Your task to perform on an android device: turn notification dots on Image 0: 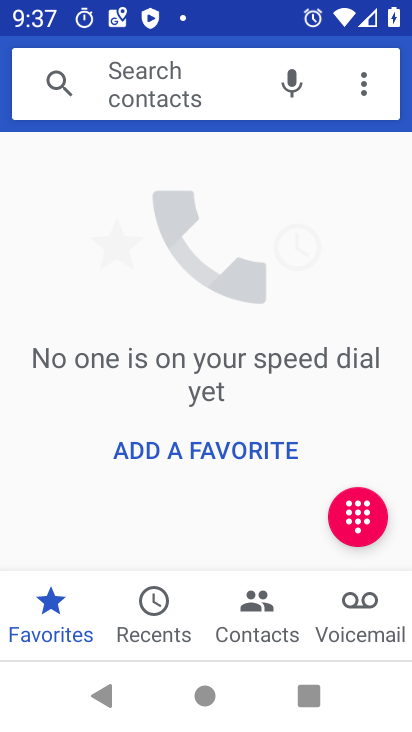
Step 0: press home button
Your task to perform on an android device: turn notification dots on Image 1: 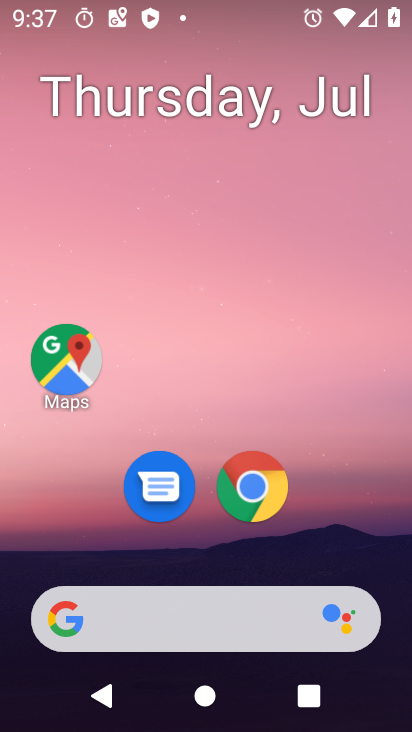
Step 1: drag from (131, 487) to (135, 103)
Your task to perform on an android device: turn notification dots on Image 2: 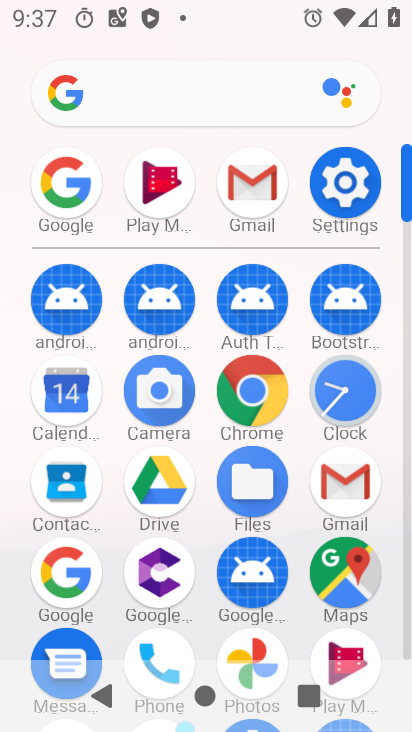
Step 2: click (343, 208)
Your task to perform on an android device: turn notification dots on Image 3: 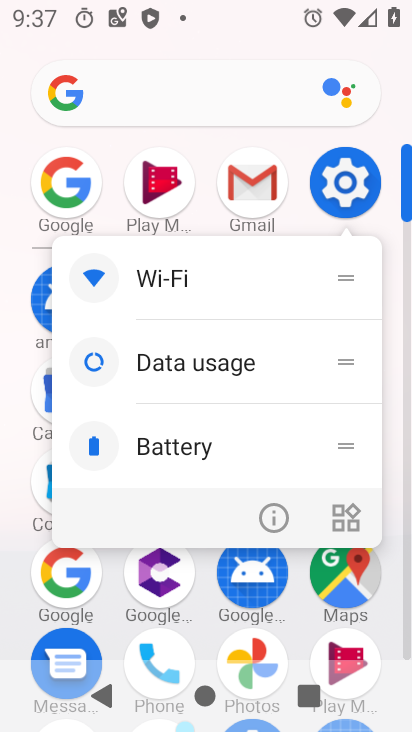
Step 3: click (346, 208)
Your task to perform on an android device: turn notification dots on Image 4: 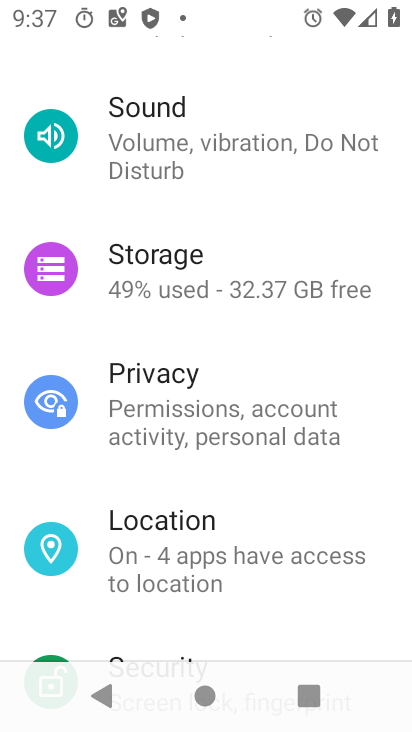
Step 4: drag from (242, 334) to (253, 645)
Your task to perform on an android device: turn notification dots on Image 5: 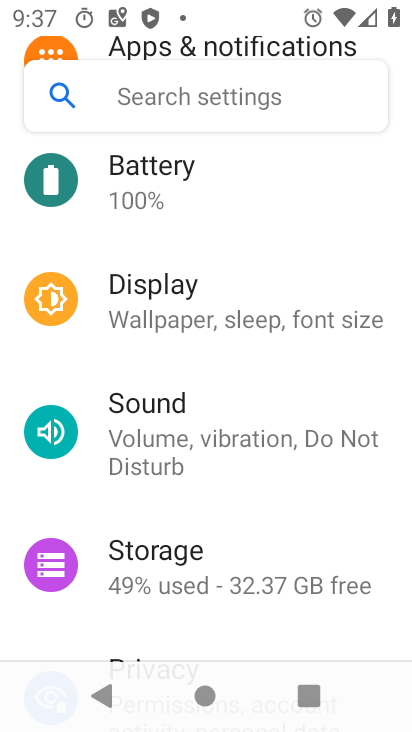
Step 5: drag from (198, 334) to (196, 595)
Your task to perform on an android device: turn notification dots on Image 6: 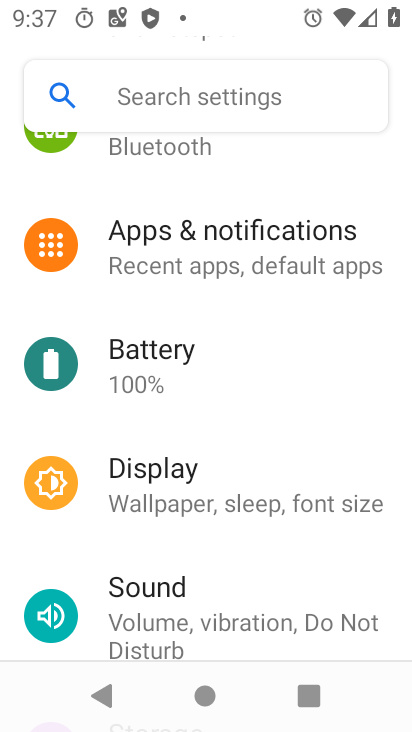
Step 6: click (172, 268)
Your task to perform on an android device: turn notification dots on Image 7: 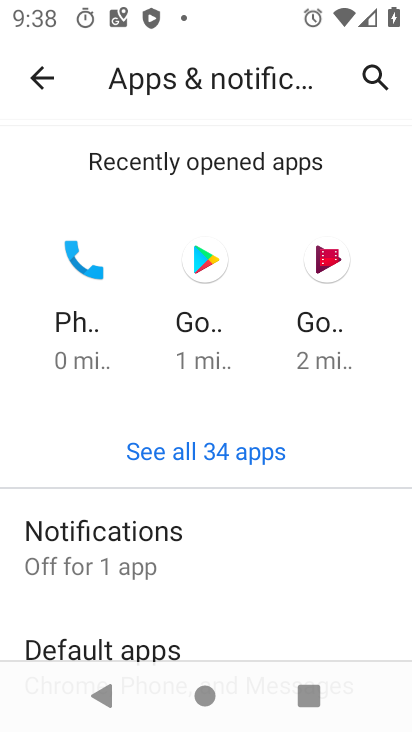
Step 7: click (113, 531)
Your task to perform on an android device: turn notification dots on Image 8: 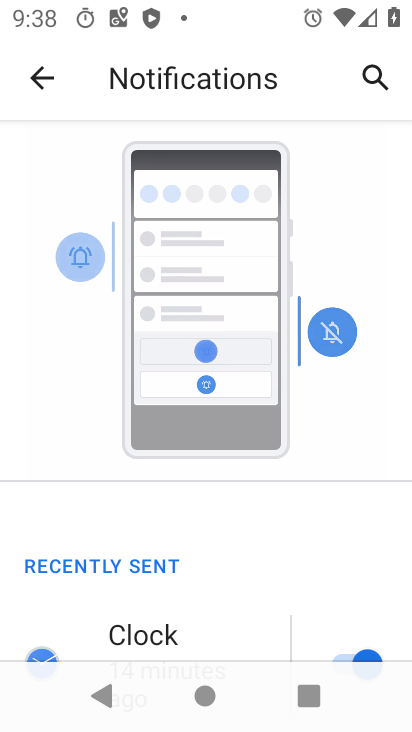
Step 8: drag from (113, 612) to (114, 251)
Your task to perform on an android device: turn notification dots on Image 9: 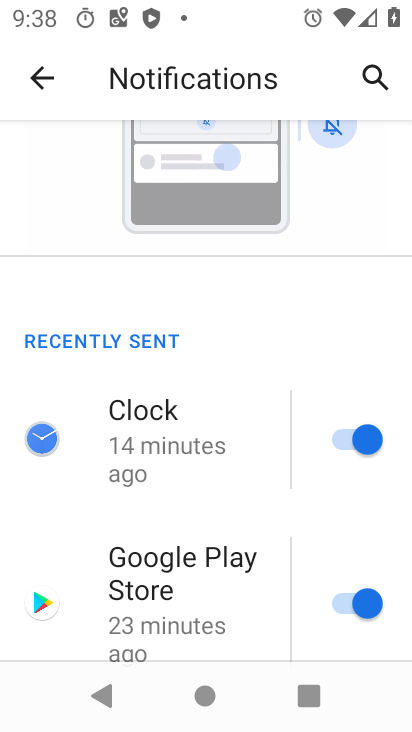
Step 9: drag from (128, 556) to (85, 250)
Your task to perform on an android device: turn notification dots on Image 10: 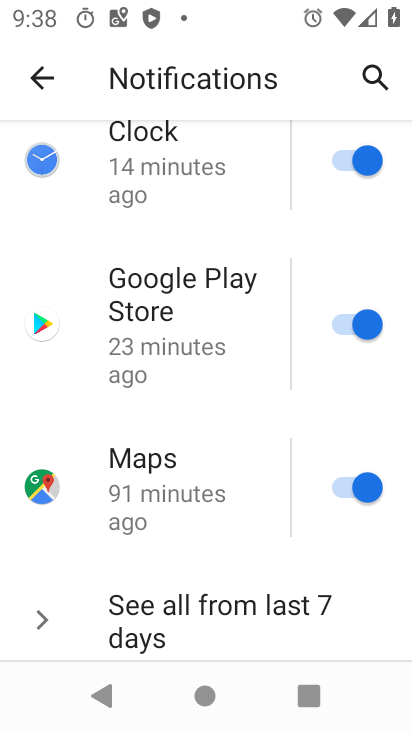
Step 10: drag from (131, 519) to (98, 305)
Your task to perform on an android device: turn notification dots on Image 11: 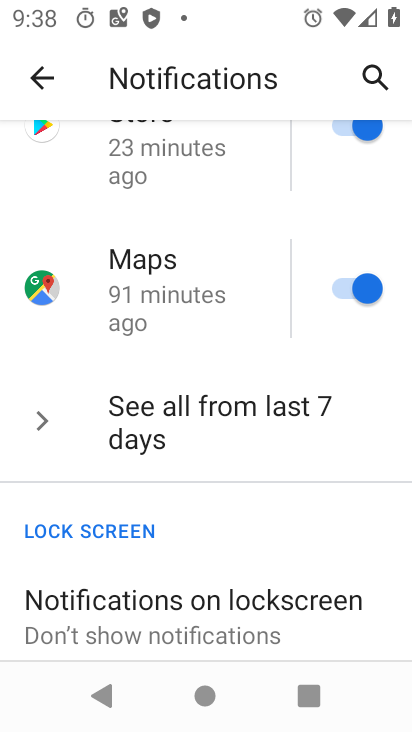
Step 11: click (254, 622)
Your task to perform on an android device: turn notification dots on Image 12: 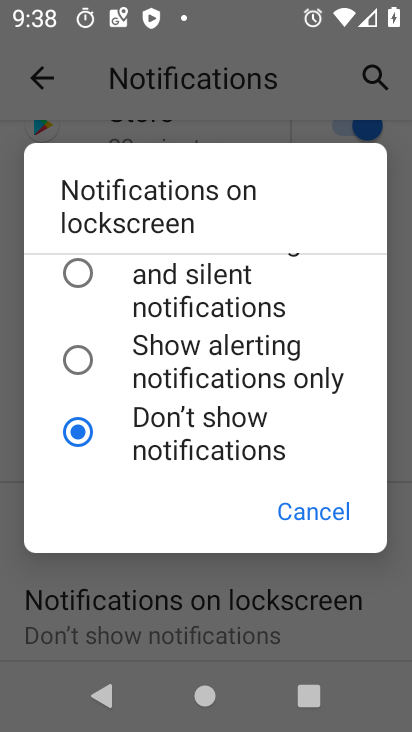
Step 12: click (297, 615)
Your task to perform on an android device: turn notification dots on Image 13: 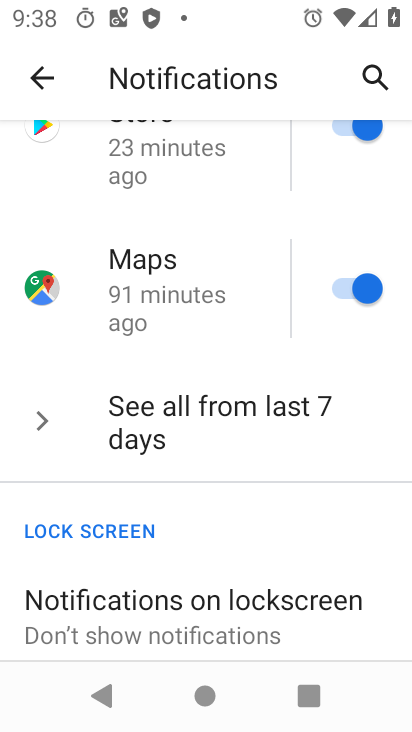
Step 13: drag from (271, 344) to (270, 156)
Your task to perform on an android device: turn notification dots on Image 14: 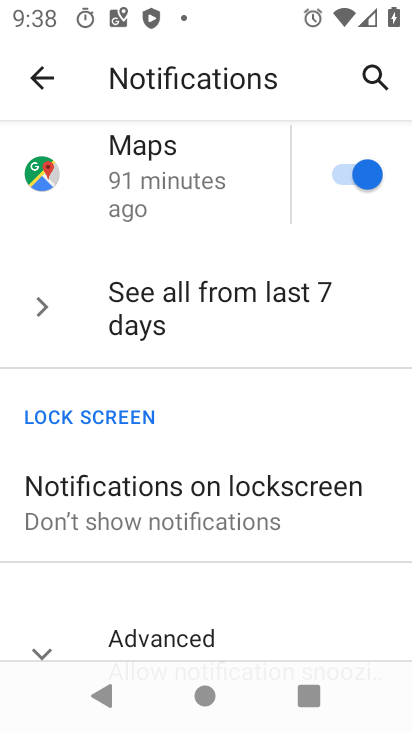
Step 14: drag from (182, 517) to (159, 319)
Your task to perform on an android device: turn notification dots on Image 15: 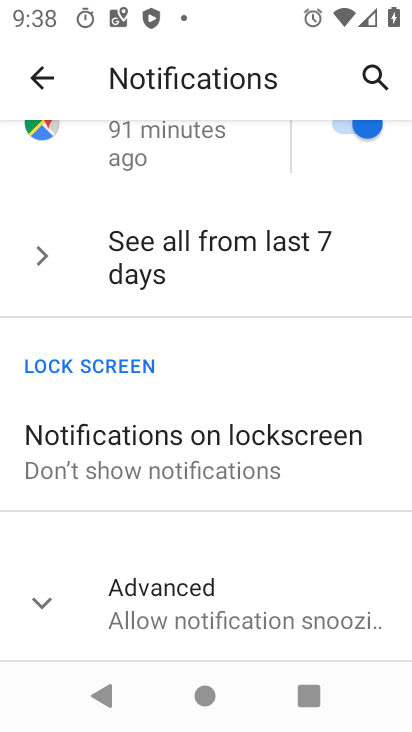
Step 15: click (129, 609)
Your task to perform on an android device: turn notification dots on Image 16: 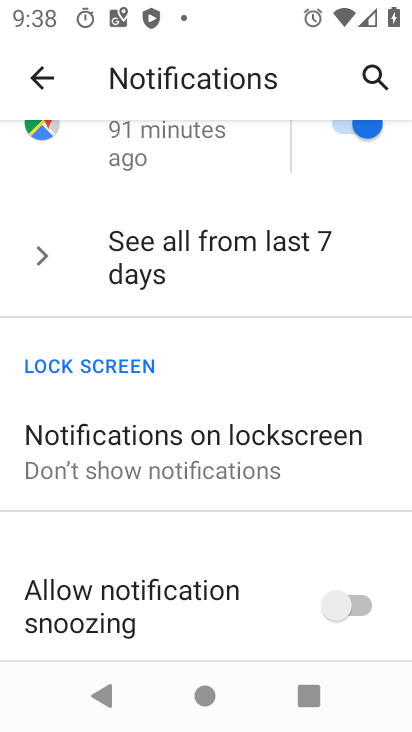
Step 16: task complete